Your task to perform on an android device: toggle wifi Image 0: 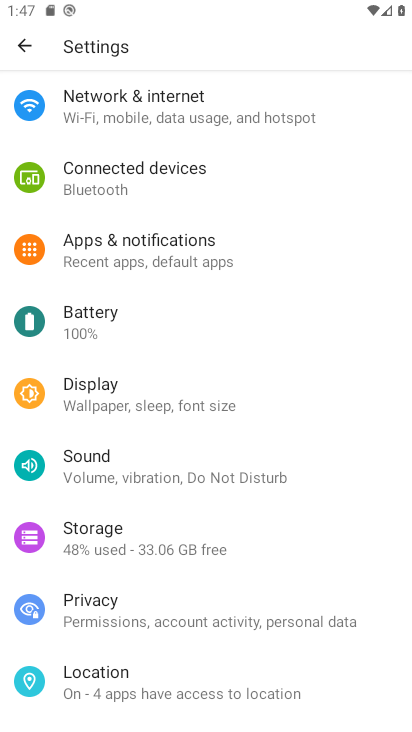
Step 0: click (211, 116)
Your task to perform on an android device: toggle wifi Image 1: 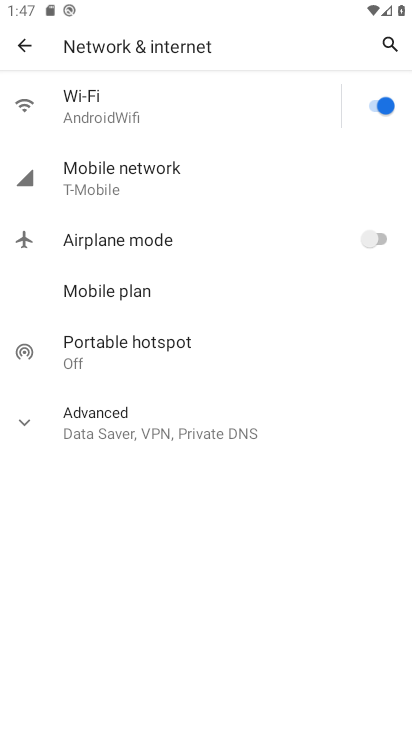
Step 1: click (370, 106)
Your task to perform on an android device: toggle wifi Image 2: 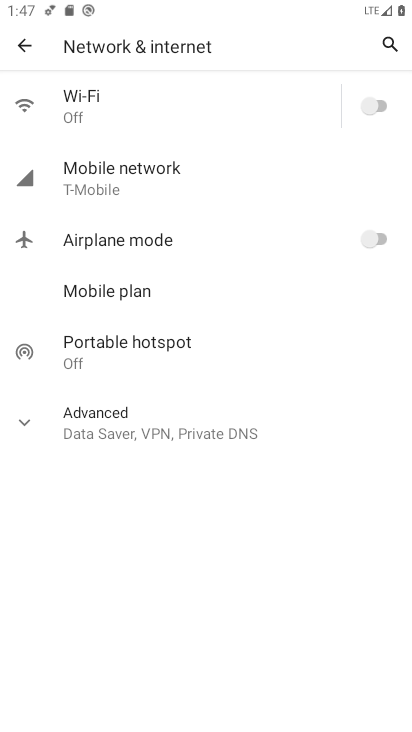
Step 2: task complete